Your task to perform on an android device: Show me popular games on the Play Store Image 0: 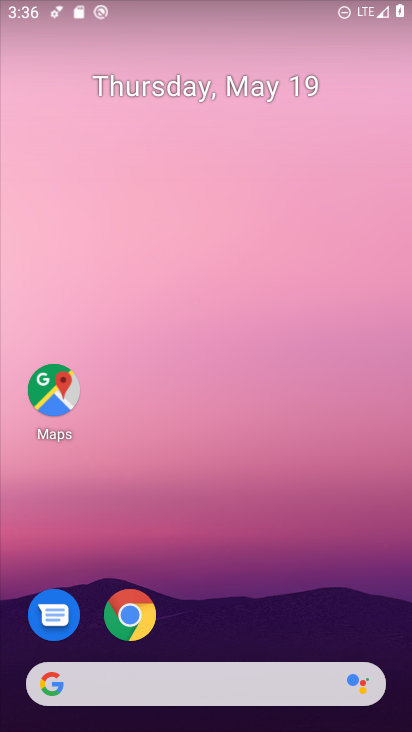
Step 0: drag from (236, 601) to (231, 58)
Your task to perform on an android device: Show me popular games on the Play Store Image 1: 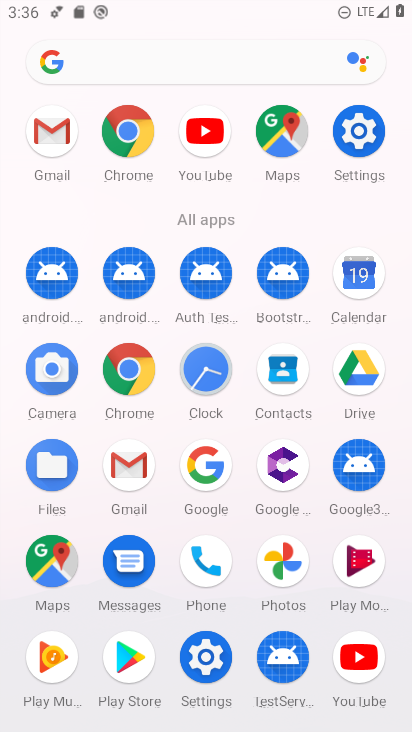
Step 1: click (136, 655)
Your task to perform on an android device: Show me popular games on the Play Store Image 2: 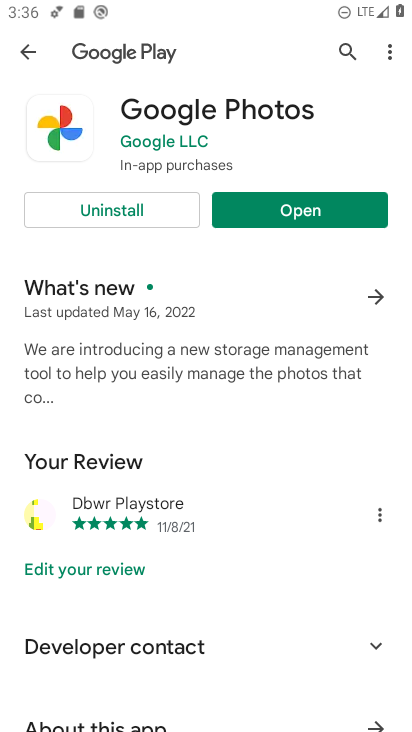
Step 2: click (32, 48)
Your task to perform on an android device: Show me popular games on the Play Store Image 3: 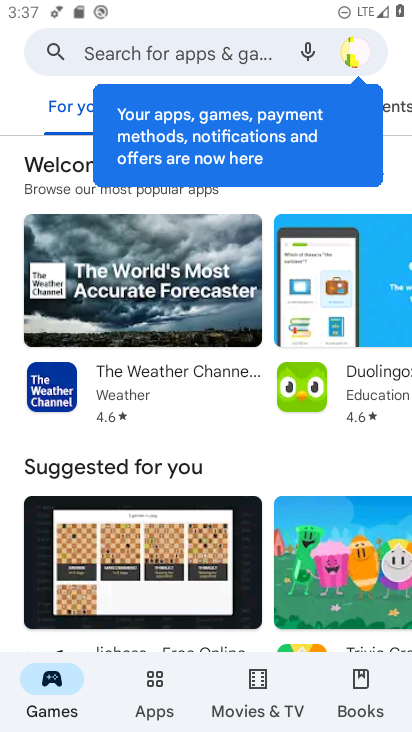
Step 3: click (71, 182)
Your task to perform on an android device: Show me popular games on the Play Store Image 4: 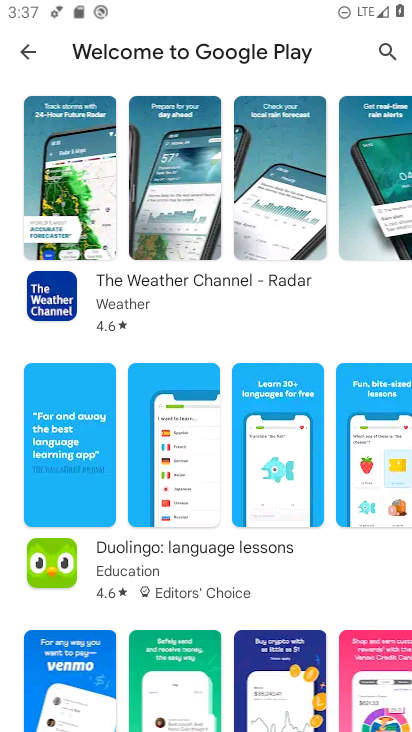
Step 4: task complete